Your task to perform on an android device: turn on wifi Image 0: 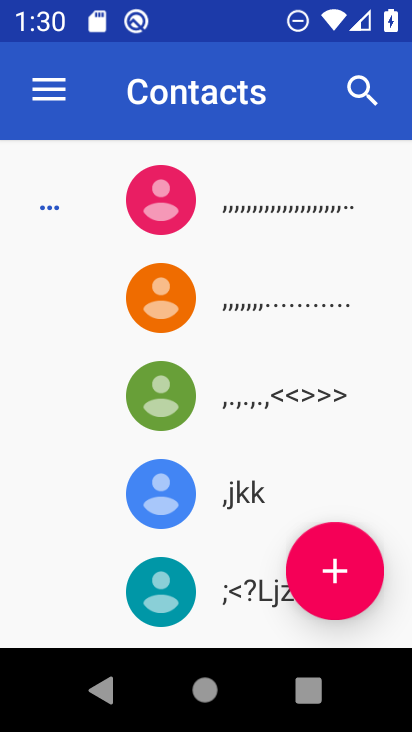
Step 0: press home button
Your task to perform on an android device: turn on wifi Image 1: 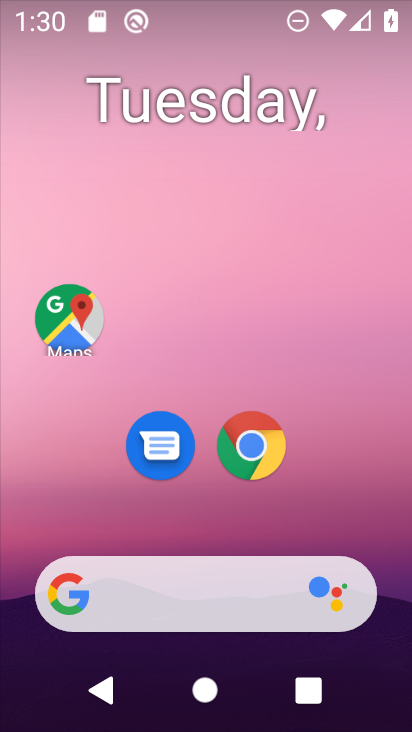
Step 1: drag from (201, 532) to (219, 209)
Your task to perform on an android device: turn on wifi Image 2: 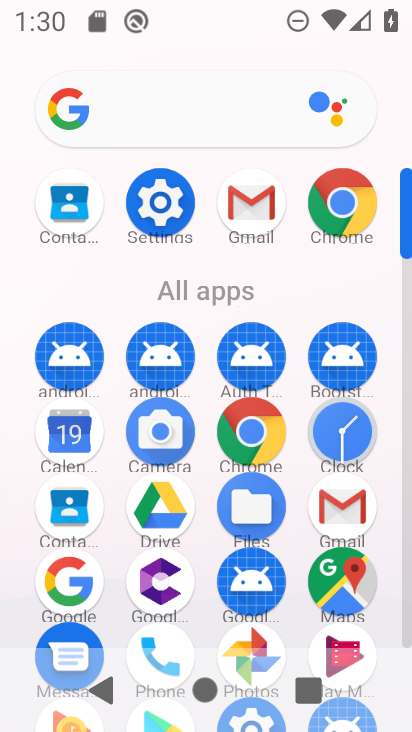
Step 2: click (169, 223)
Your task to perform on an android device: turn on wifi Image 3: 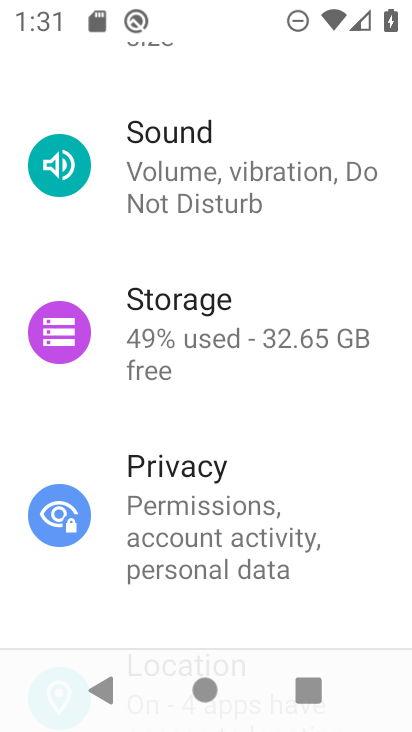
Step 3: task complete